Your task to perform on an android device: turn notification dots off Image 0: 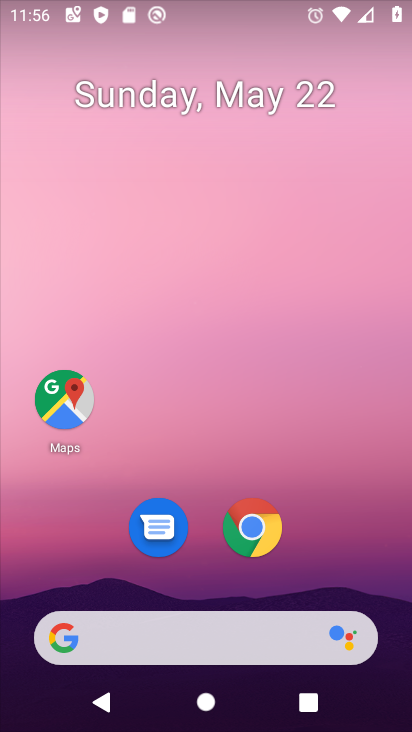
Step 0: drag from (365, 569) to (338, 102)
Your task to perform on an android device: turn notification dots off Image 1: 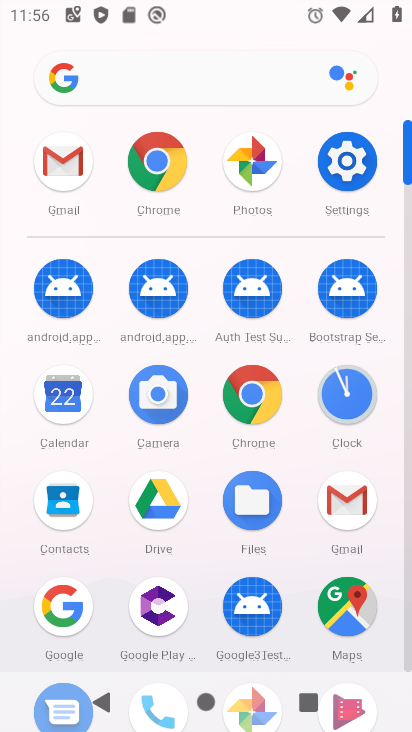
Step 1: click (352, 172)
Your task to perform on an android device: turn notification dots off Image 2: 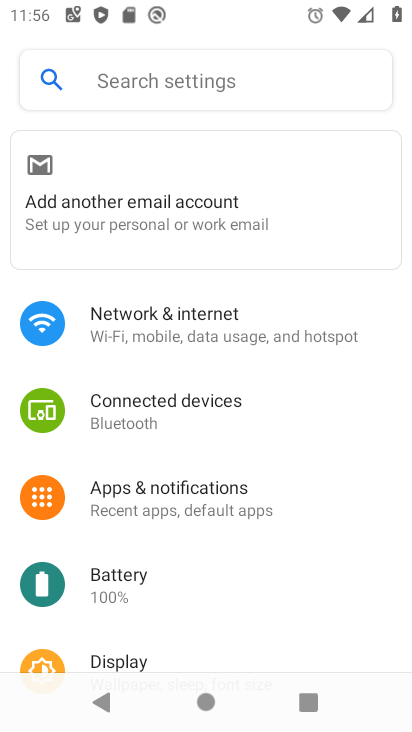
Step 2: click (179, 505)
Your task to perform on an android device: turn notification dots off Image 3: 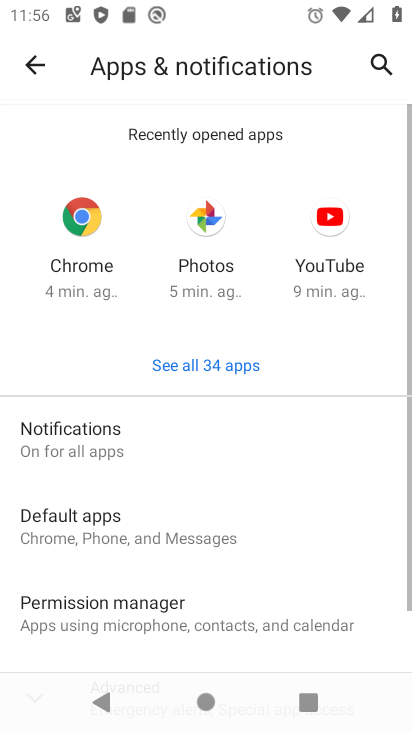
Step 3: click (268, 426)
Your task to perform on an android device: turn notification dots off Image 4: 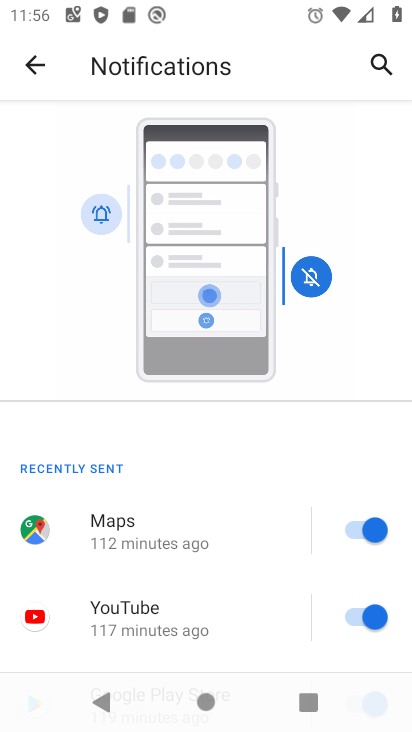
Step 4: task complete